Your task to perform on an android device: What is the news today? Image 0: 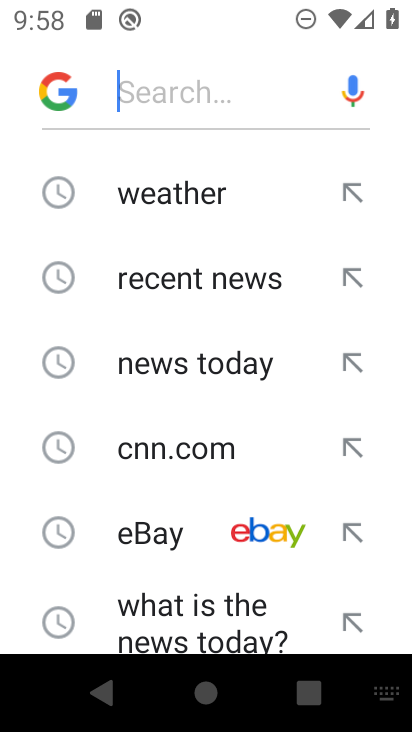
Step 0: click (197, 365)
Your task to perform on an android device: What is the news today? Image 1: 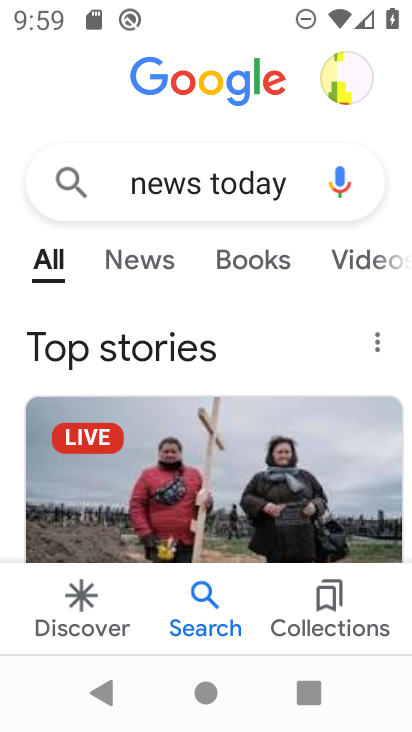
Step 1: task complete